Your task to perform on an android device: move a message to another label in the gmail app Image 0: 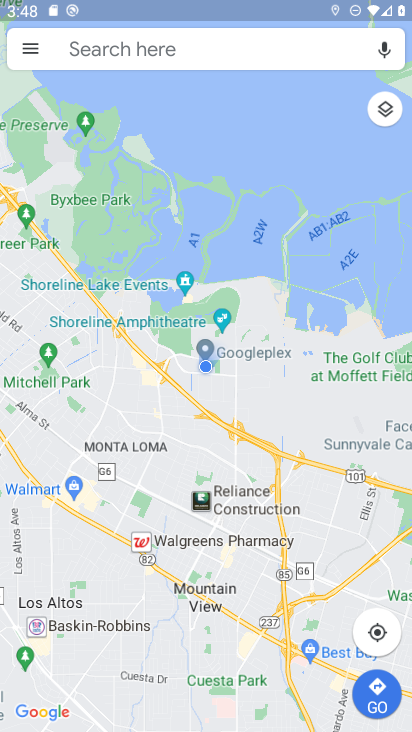
Step 0: press back button
Your task to perform on an android device: move a message to another label in the gmail app Image 1: 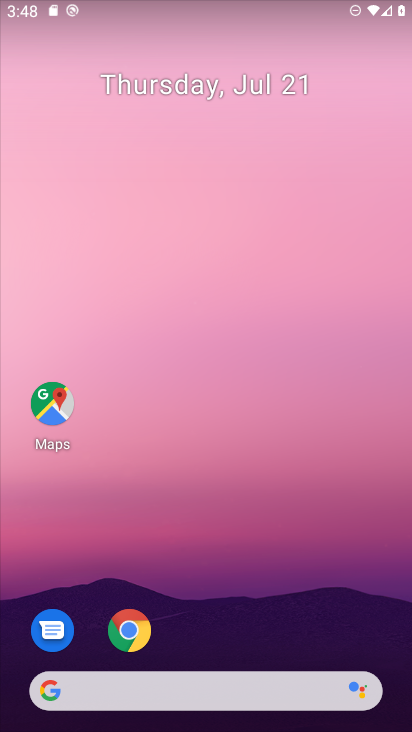
Step 1: drag from (214, 632) to (279, 16)
Your task to perform on an android device: move a message to another label in the gmail app Image 2: 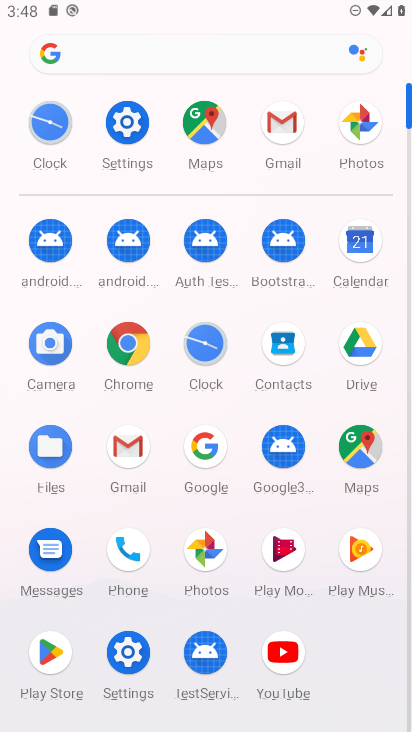
Step 2: click (269, 124)
Your task to perform on an android device: move a message to another label in the gmail app Image 3: 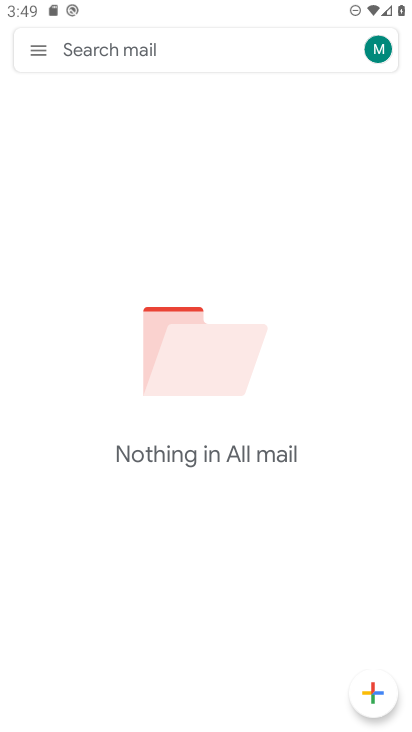
Step 3: task complete